Your task to perform on an android device: Open settings on Google Maps Image 0: 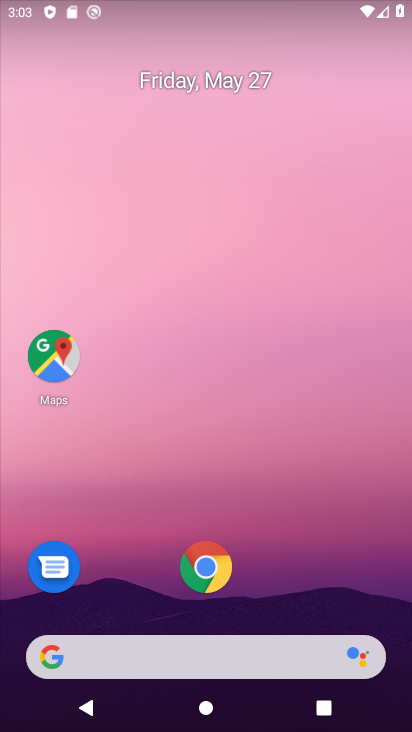
Step 0: click (43, 358)
Your task to perform on an android device: Open settings on Google Maps Image 1: 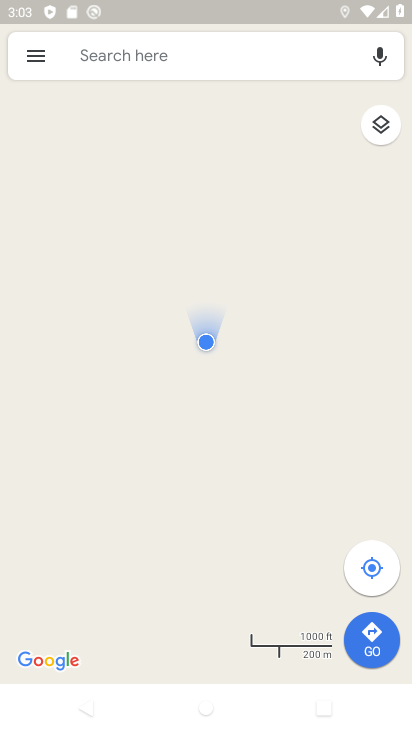
Step 1: click (27, 56)
Your task to perform on an android device: Open settings on Google Maps Image 2: 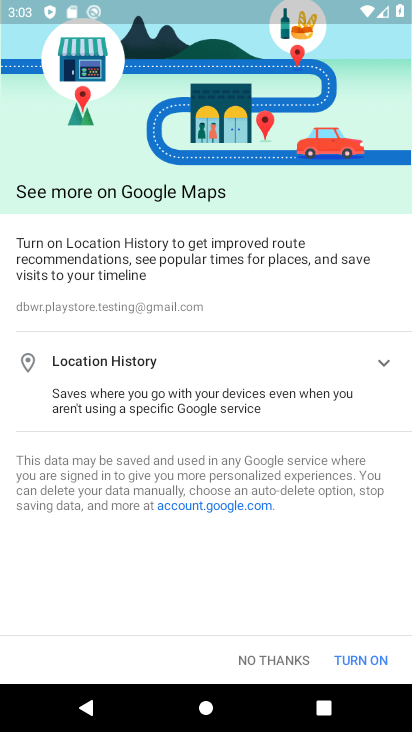
Step 2: click (258, 658)
Your task to perform on an android device: Open settings on Google Maps Image 3: 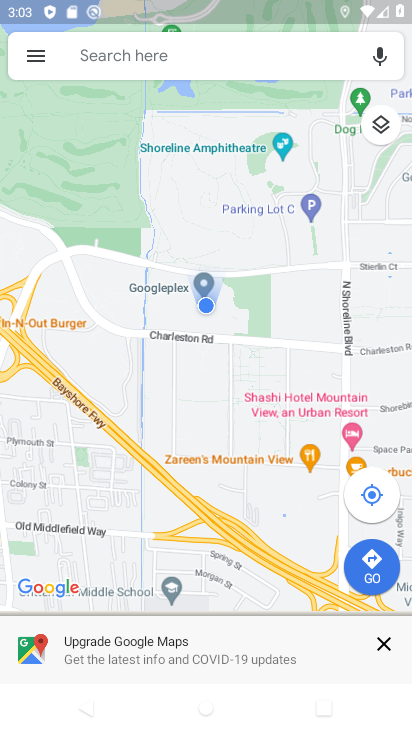
Step 3: click (28, 53)
Your task to perform on an android device: Open settings on Google Maps Image 4: 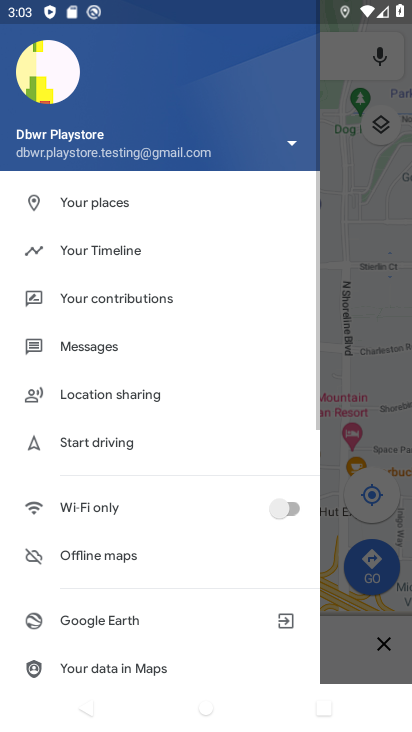
Step 4: drag from (118, 572) to (159, 142)
Your task to perform on an android device: Open settings on Google Maps Image 5: 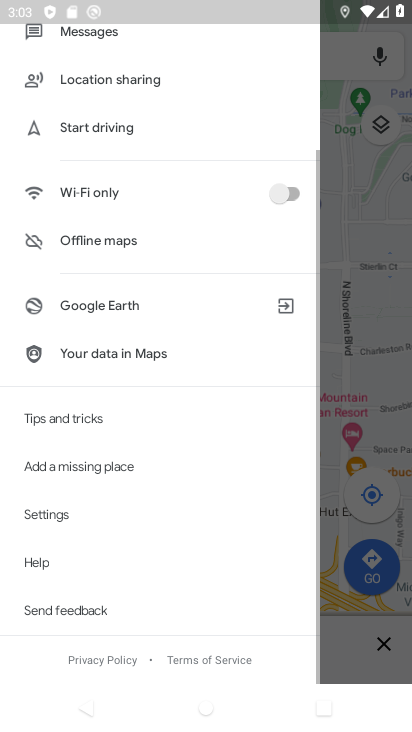
Step 5: click (60, 521)
Your task to perform on an android device: Open settings on Google Maps Image 6: 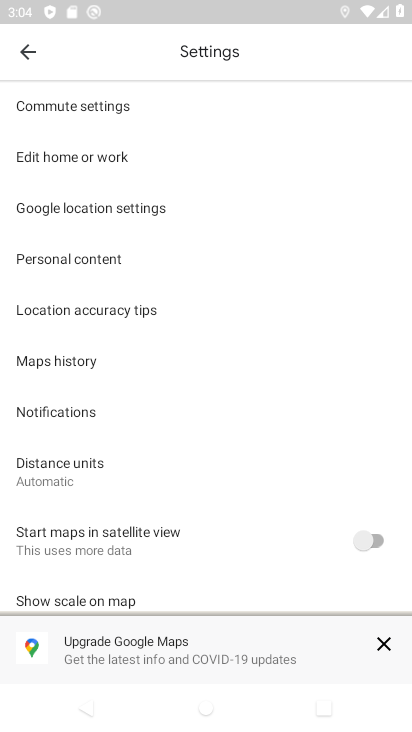
Step 6: task complete